Your task to perform on an android device: Go to privacy settings Image 0: 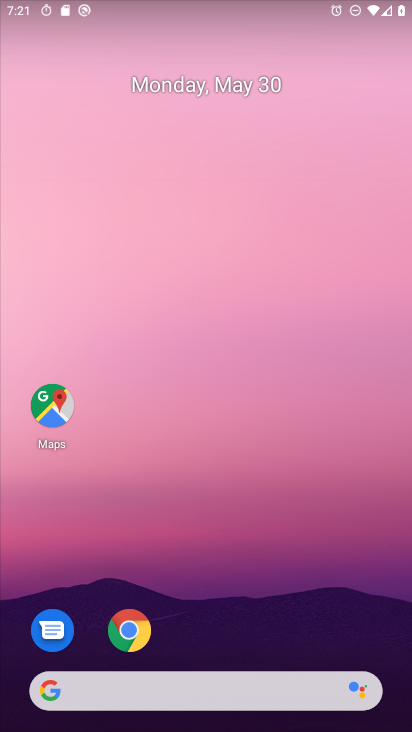
Step 0: drag from (343, 627) to (262, 12)
Your task to perform on an android device: Go to privacy settings Image 1: 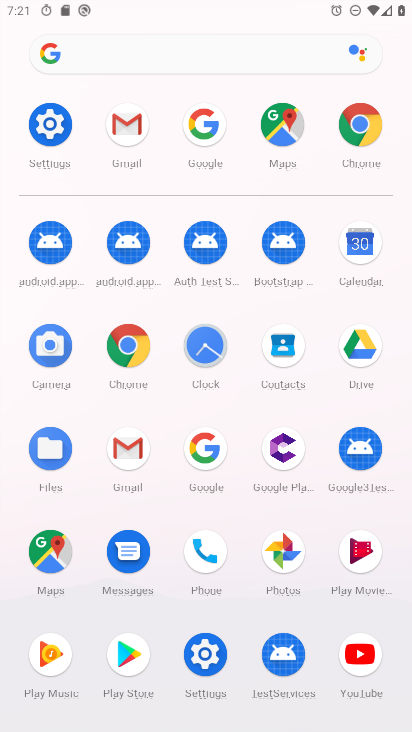
Step 1: click (51, 109)
Your task to perform on an android device: Go to privacy settings Image 2: 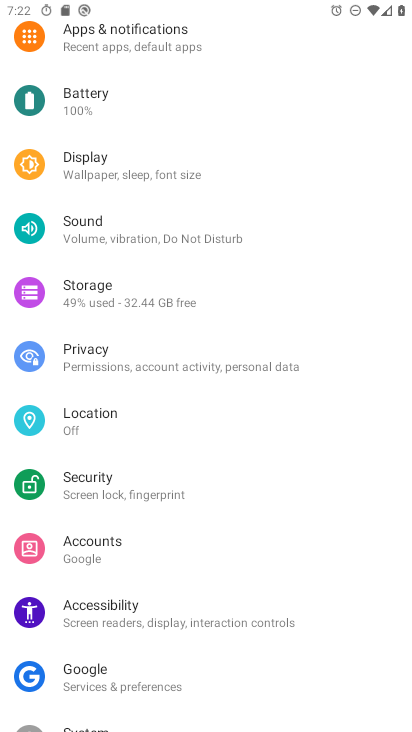
Step 2: click (134, 353)
Your task to perform on an android device: Go to privacy settings Image 3: 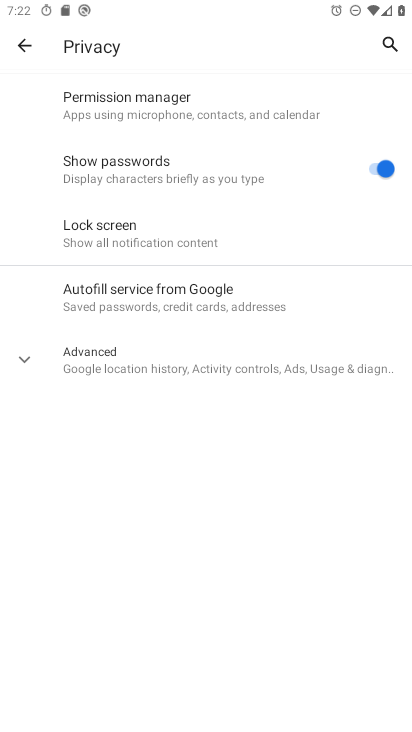
Step 3: task complete